Your task to perform on an android device: Go to Maps Image 0: 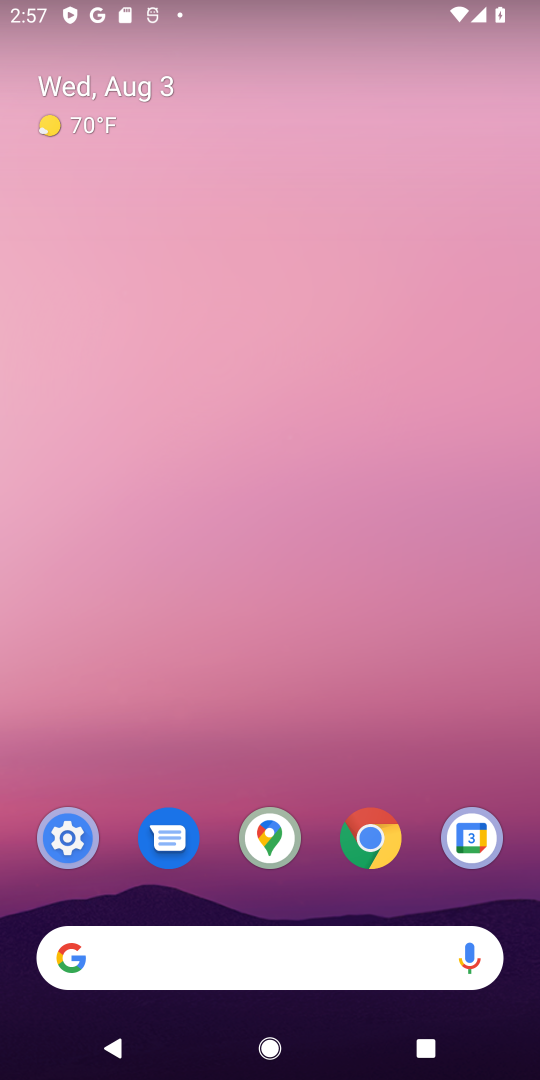
Step 0: click (281, 849)
Your task to perform on an android device: Go to Maps Image 1: 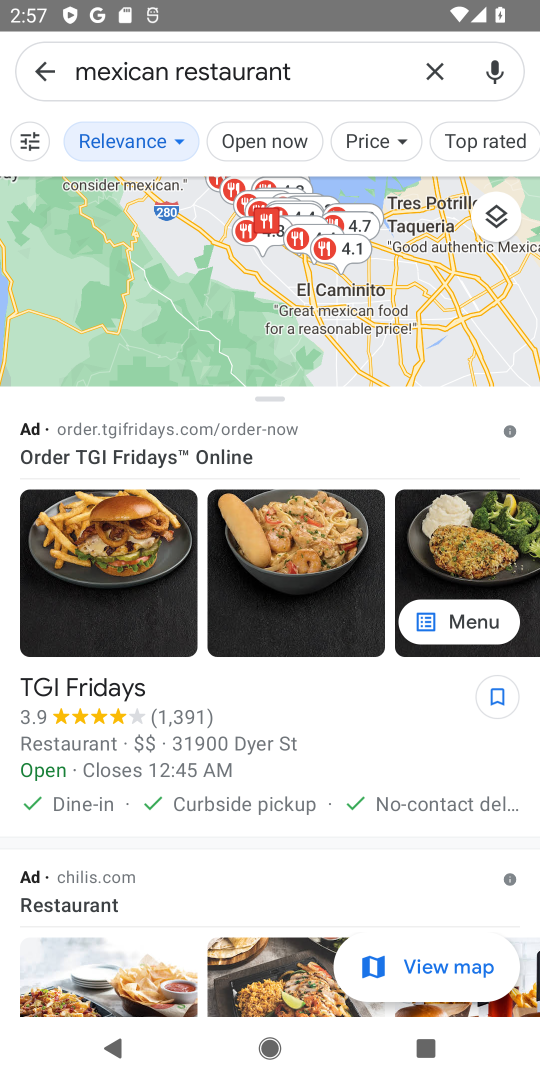
Step 1: task complete